Your task to perform on an android device: toggle improve location accuracy Image 0: 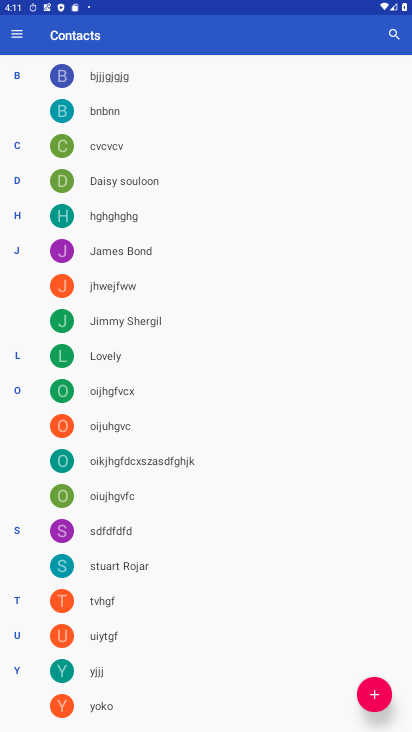
Step 0: press home button
Your task to perform on an android device: toggle improve location accuracy Image 1: 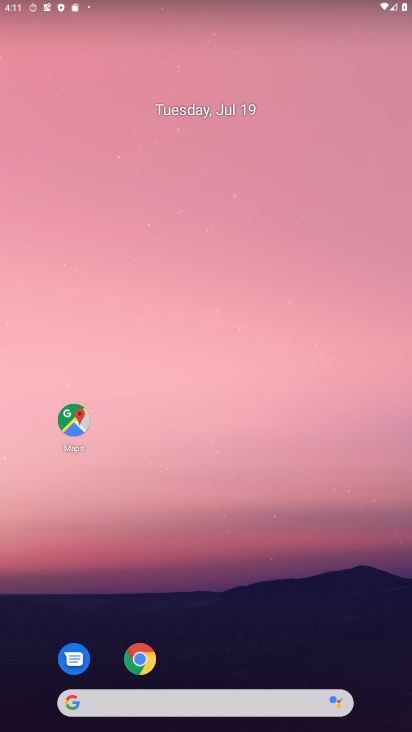
Step 1: drag from (299, 647) to (339, 0)
Your task to perform on an android device: toggle improve location accuracy Image 2: 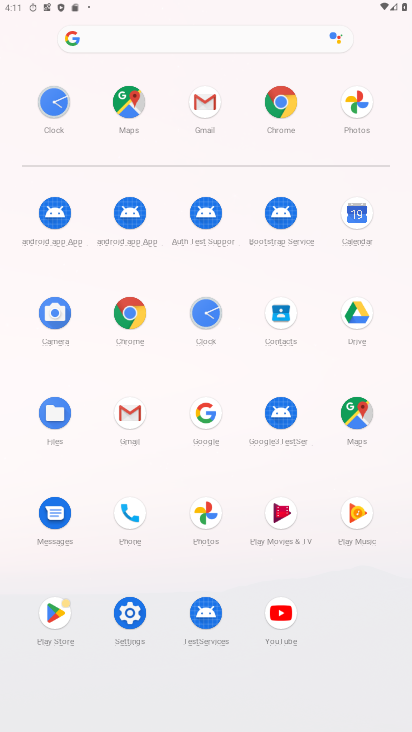
Step 2: click (125, 621)
Your task to perform on an android device: toggle improve location accuracy Image 3: 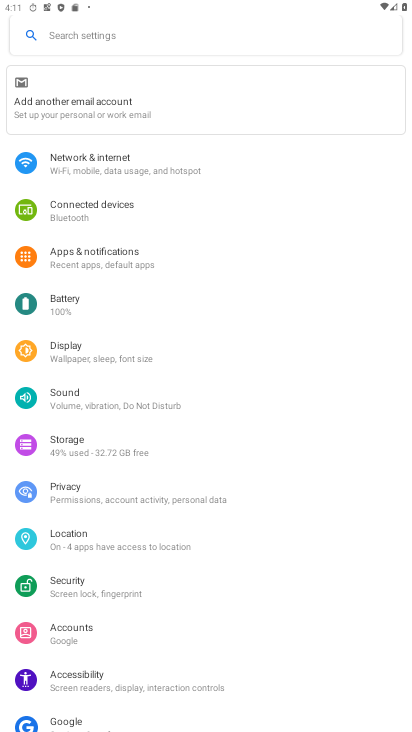
Step 3: drag from (155, 603) to (202, 194)
Your task to perform on an android device: toggle improve location accuracy Image 4: 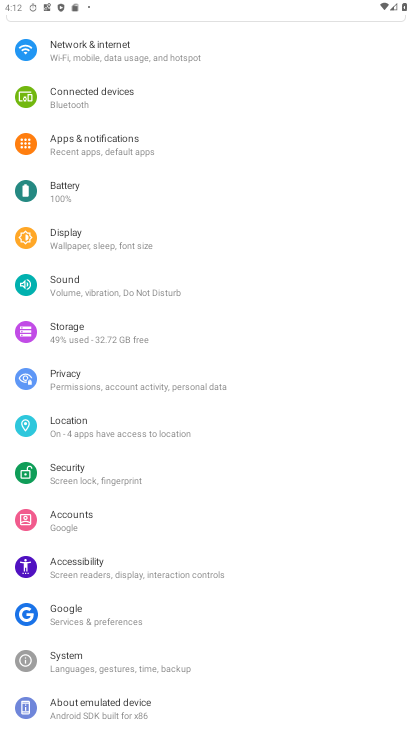
Step 4: click (114, 436)
Your task to perform on an android device: toggle improve location accuracy Image 5: 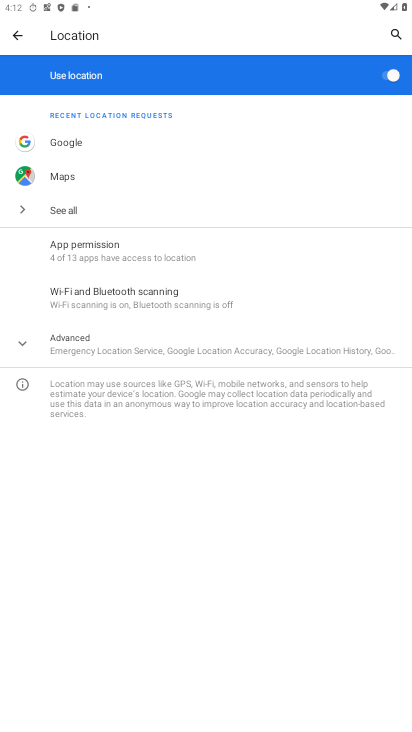
Step 5: click (126, 344)
Your task to perform on an android device: toggle improve location accuracy Image 6: 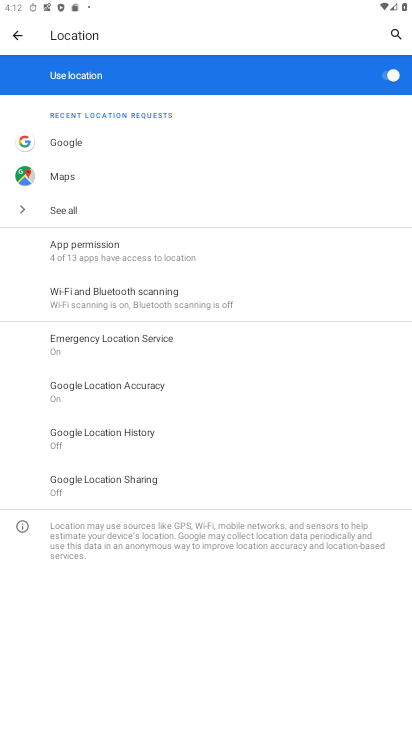
Step 6: click (107, 382)
Your task to perform on an android device: toggle improve location accuracy Image 7: 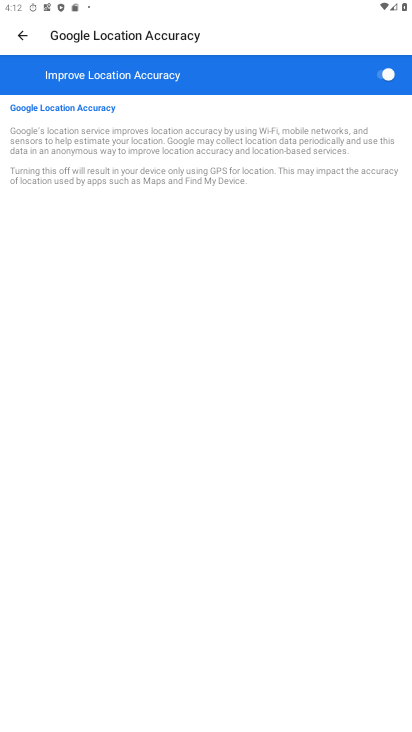
Step 7: click (394, 71)
Your task to perform on an android device: toggle improve location accuracy Image 8: 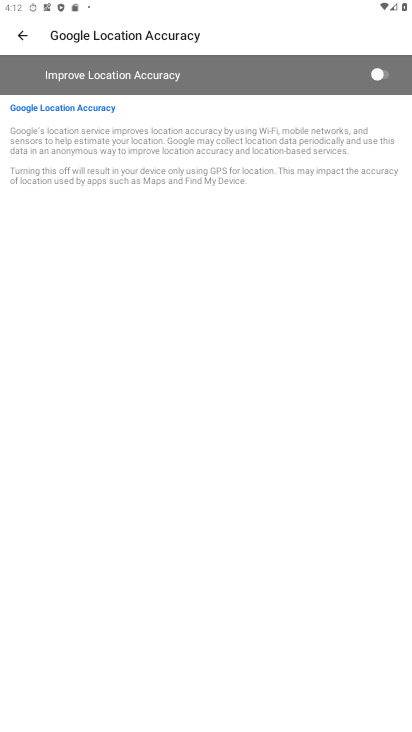
Step 8: task complete